Your task to perform on an android device: Open Google Chrome and open the bookmarks view Image 0: 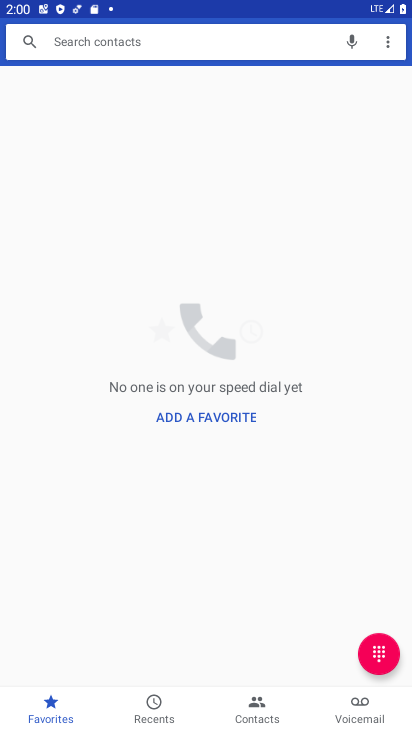
Step 0: press home button
Your task to perform on an android device: Open Google Chrome and open the bookmarks view Image 1: 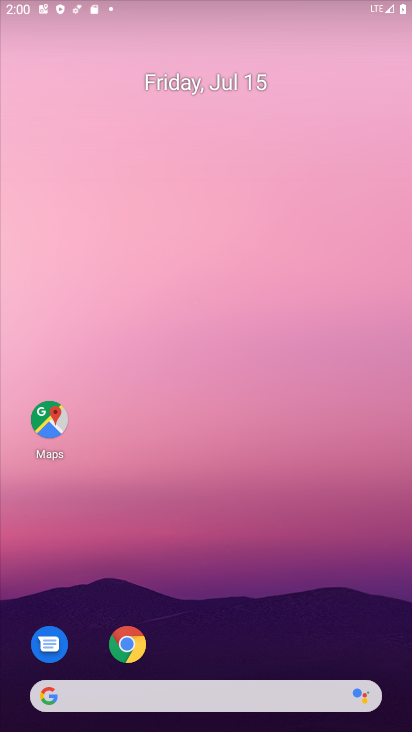
Step 1: drag from (374, 581) to (323, 62)
Your task to perform on an android device: Open Google Chrome and open the bookmarks view Image 2: 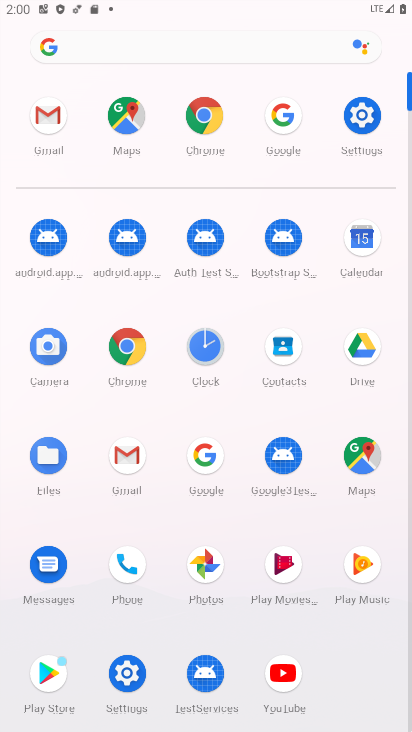
Step 2: click (131, 319)
Your task to perform on an android device: Open Google Chrome and open the bookmarks view Image 3: 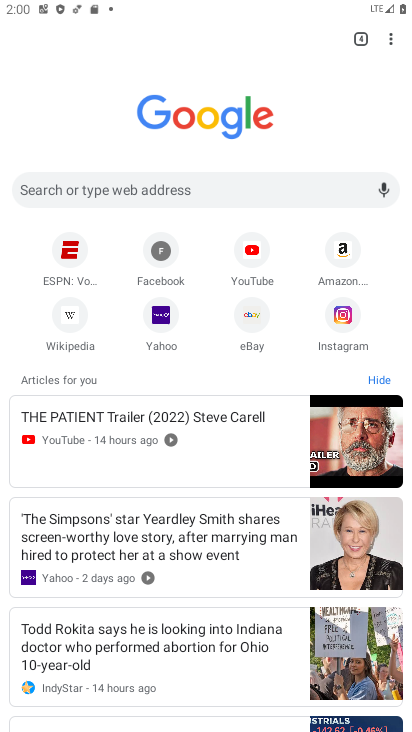
Step 3: click (388, 34)
Your task to perform on an android device: Open Google Chrome and open the bookmarks view Image 4: 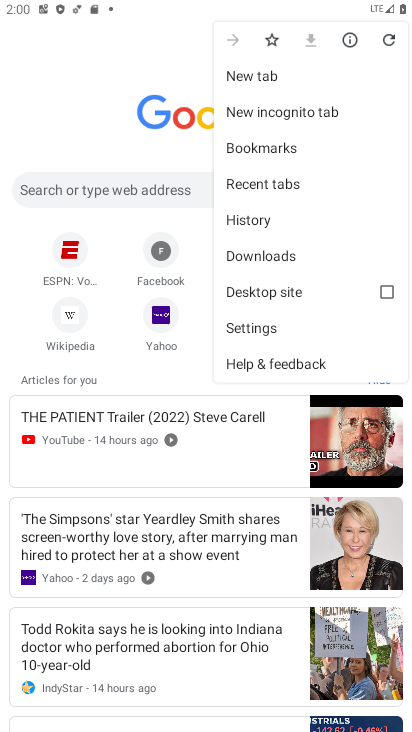
Step 4: click (289, 157)
Your task to perform on an android device: Open Google Chrome and open the bookmarks view Image 5: 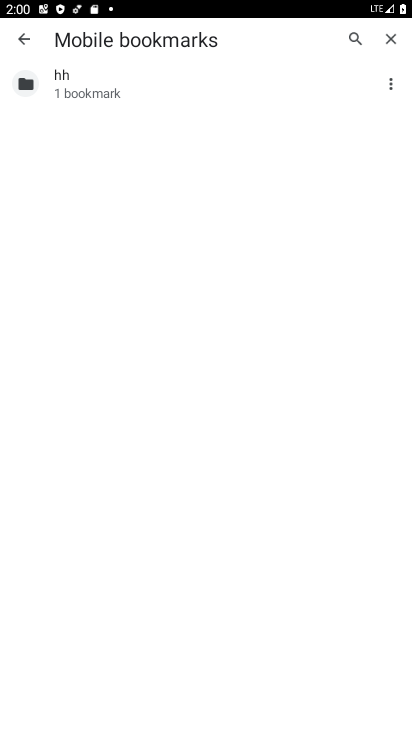
Step 5: task complete